Your task to perform on an android device: find which apps use the phone's location Image 0: 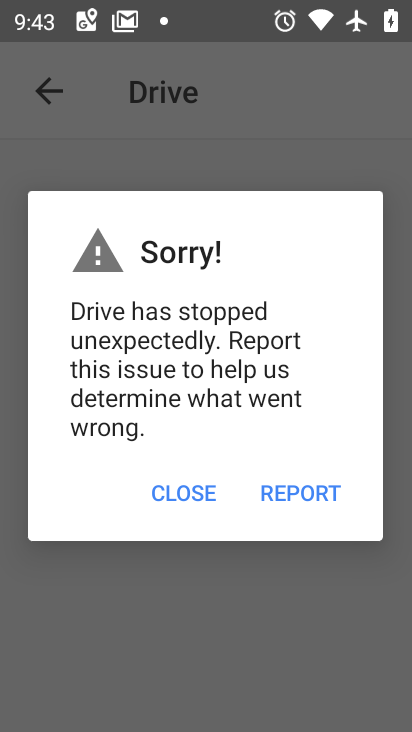
Step 0: press home button
Your task to perform on an android device: find which apps use the phone's location Image 1: 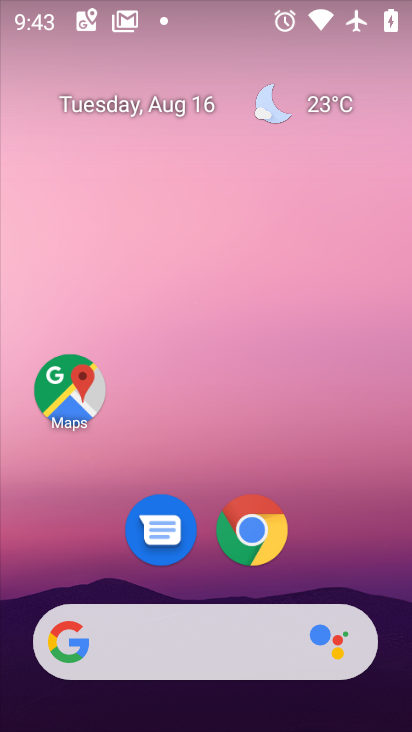
Step 1: drag from (349, 560) to (283, 136)
Your task to perform on an android device: find which apps use the phone's location Image 2: 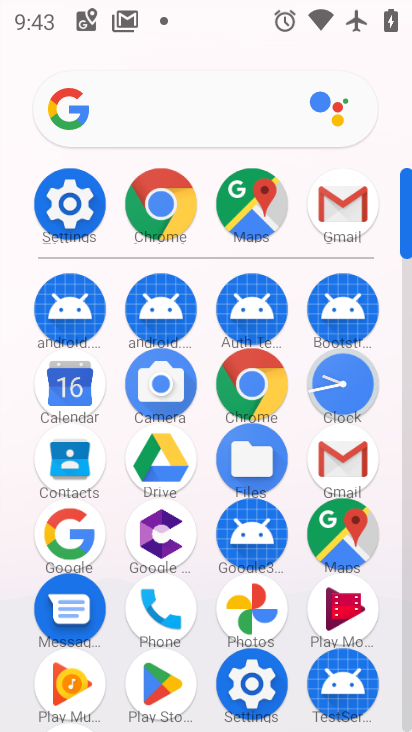
Step 2: click (253, 698)
Your task to perform on an android device: find which apps use the phone's location Image 3: 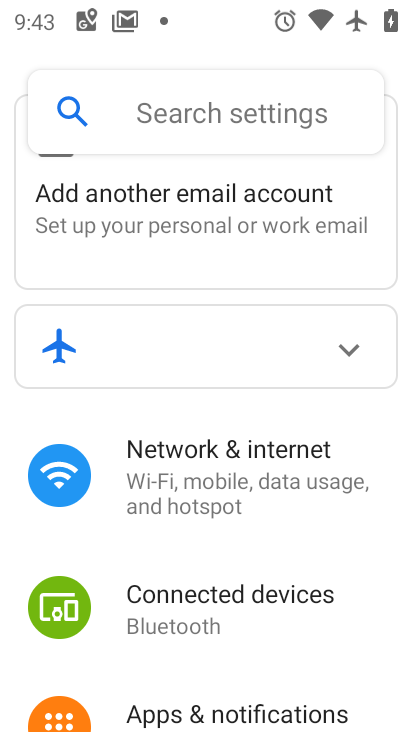
Step 3: drag from (247, 644) to (261, 149)
Your task to perform on an android device: find which apps use the phone's location Image 4: 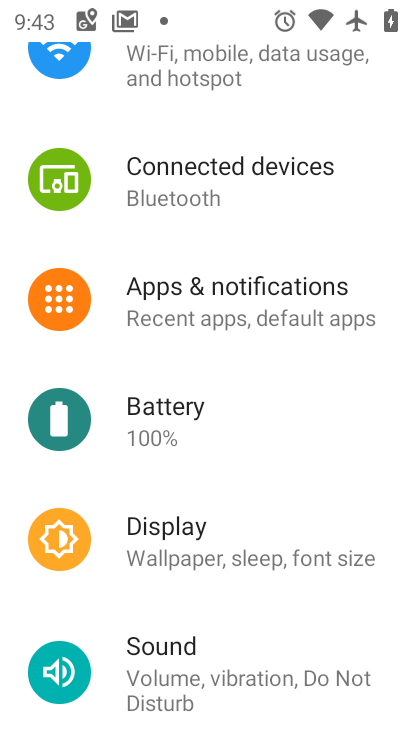
Step 4: drag from (234, 629) to (278, 154)
Your task to perform on an android device: find which apps use the phone's location Image 5: 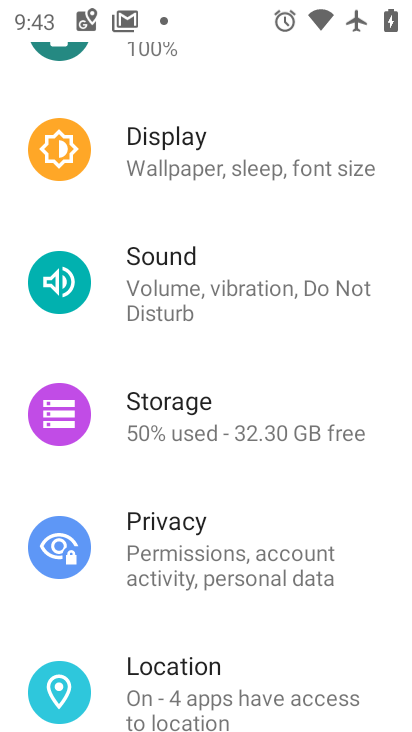
Step 5: click (161, 684)
Your task to perform on an android device: find which apps use the phone's location Image 6: 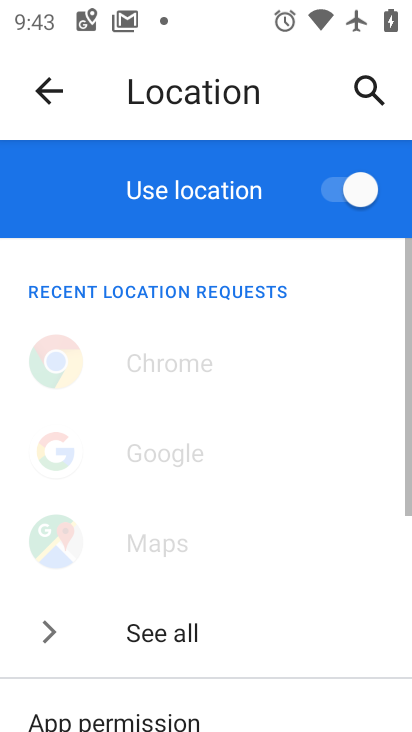
Step 6: click (171, 615)
Your task to perform on an android device: find which apps use the phone's location Image 7: 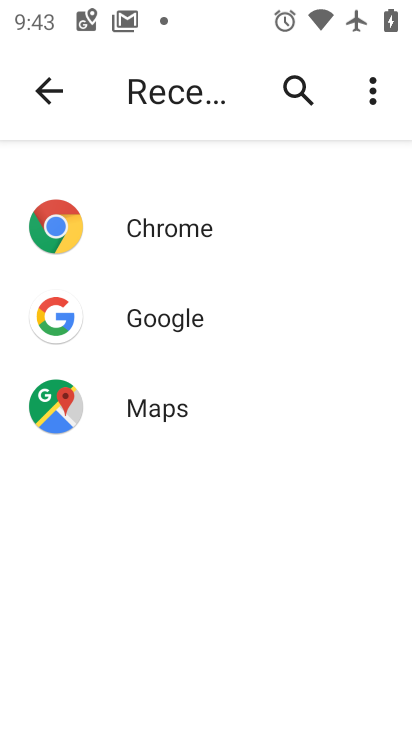
Step 7: click (70, 84)
Your task to perform on an android device: find which apps use the phone's location Image 8: 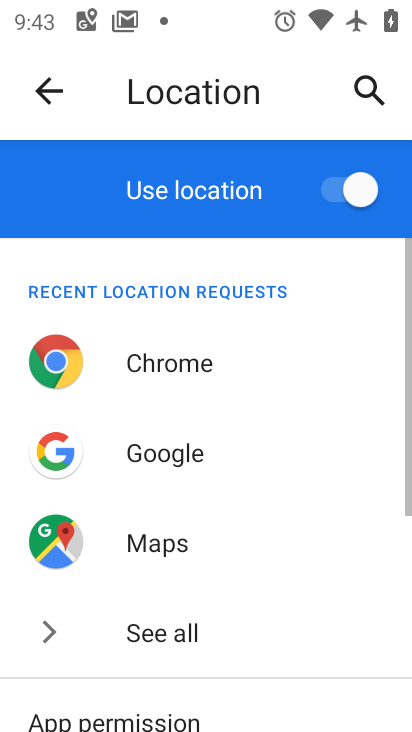
Step 8: drag from (260, 681) to (282, 248)
Your task to perform on an android device: find which apps use the phone's location Image 9: 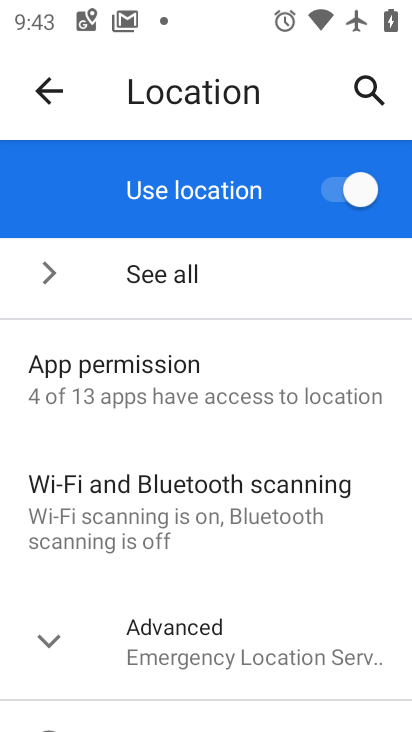
Step 9: click (227, 373)
Your task to perform on an android device: find which apps use the phone's location Image 10: 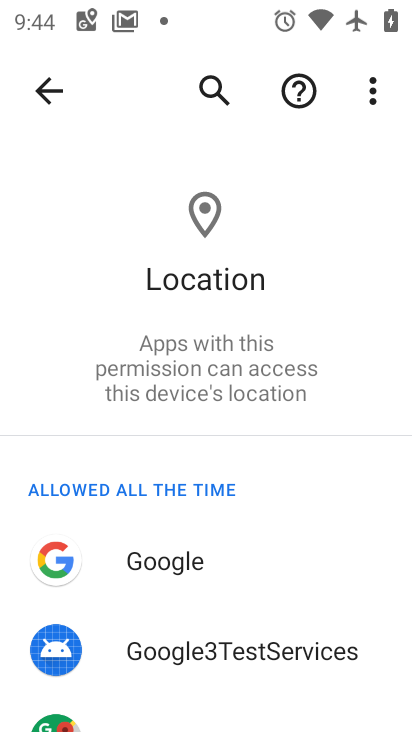
Step 10: task complete